Your task to perform on an android device: turn on translation in the chrome app Image 0: 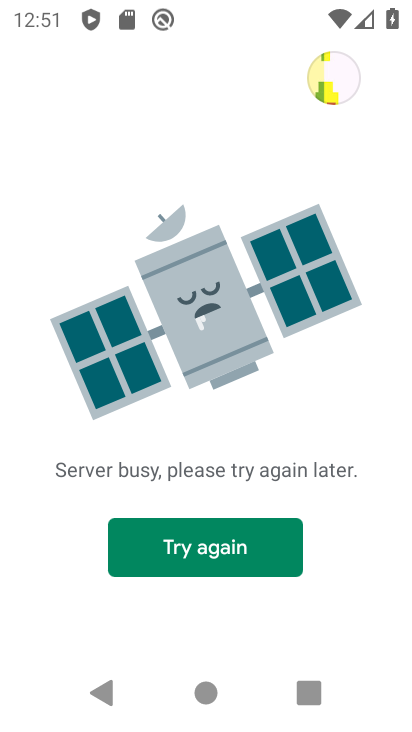
Step 0: press home button
Your task to perform on an android device: turn on translation in the chrome app Image 1: 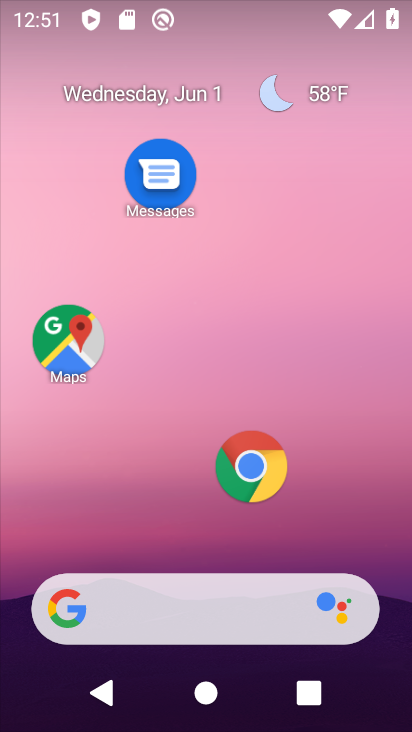
Step 1: click (246, 477)
Your task to perform on an android device: turn on translation in the chrome app Image 2: 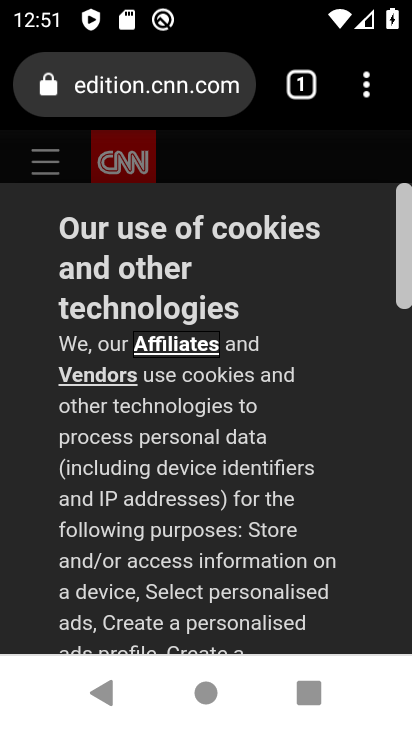
Step 2: click (370, 97)
Your task to perform on an android device: turn on translation in the chrome app Image 3: 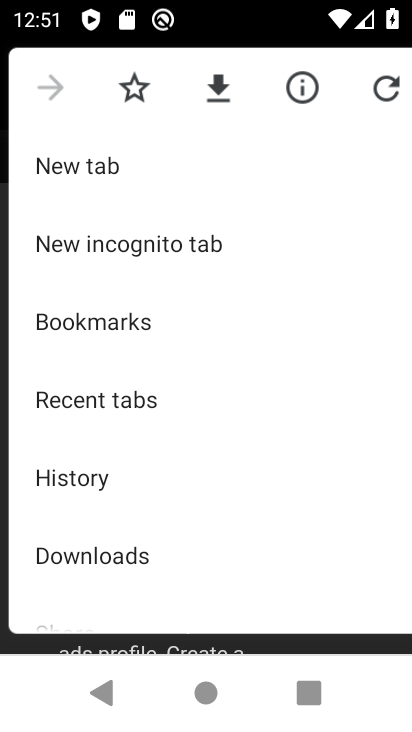
Step 3: drag from (125, 546) to (164, 232)
Your task to perform on an android device: turn on translation in the chrome app Image 4: 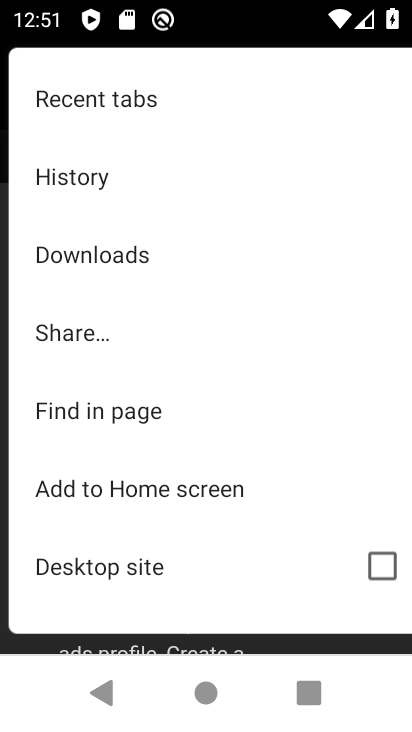
Step 4: drag from (94, 541) to (113, 169)
Your task to perform on an android device: turn on translation in the chrome app Image 5: 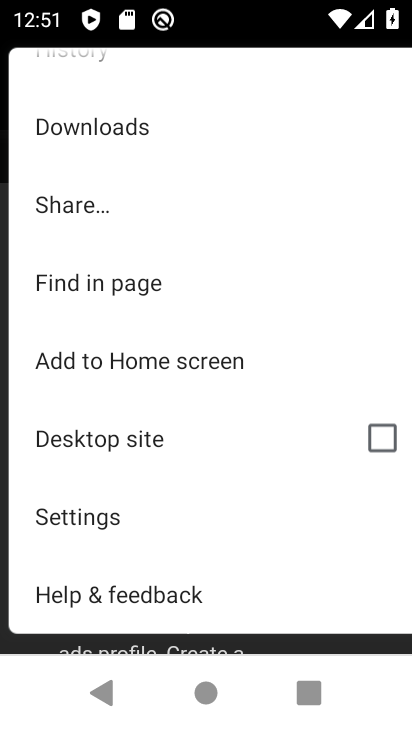
Step 5: click (95, 517)
Your task to perform on an android device: turn on translation in the chrome app Image 6: 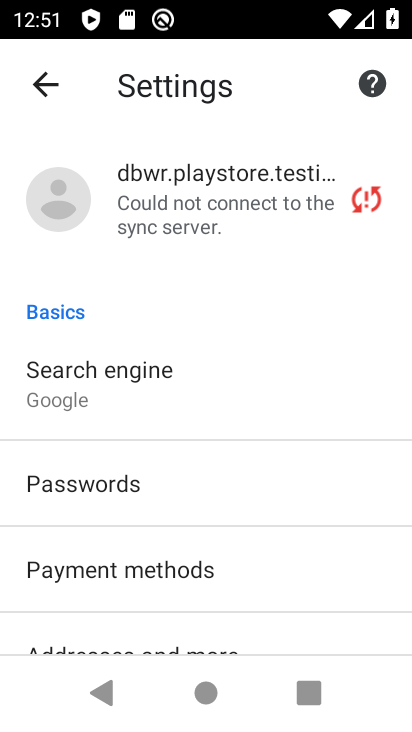
Step 6: drag from (252, 457) to (256, 207)
Your task to perform on an android device: turn on translation in the chrome app Image 7: 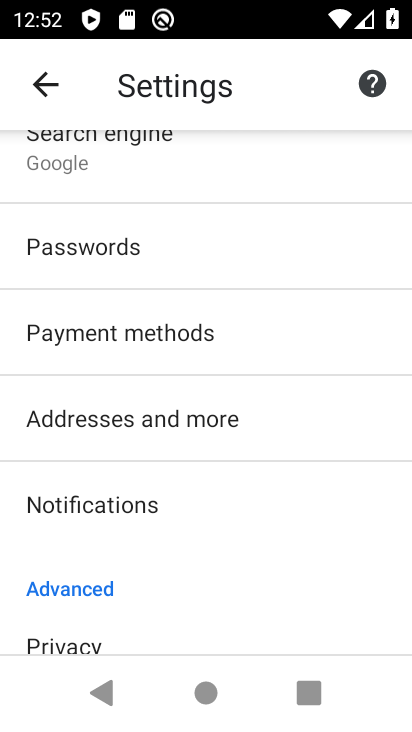
Step 7: drag from (105, 580) to (120, 218)
Your task to perform on an android device: turn on translation in the chrome app Image 8: 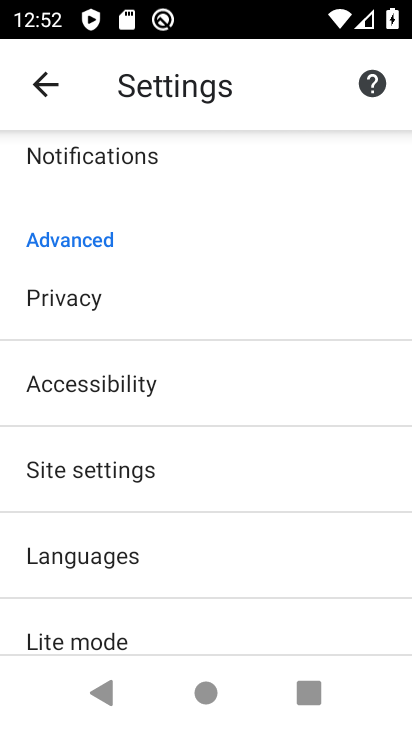
Step 8: click (110, 562)
Your task to perform on an android device: turn on translation in the chrome app Image 9: 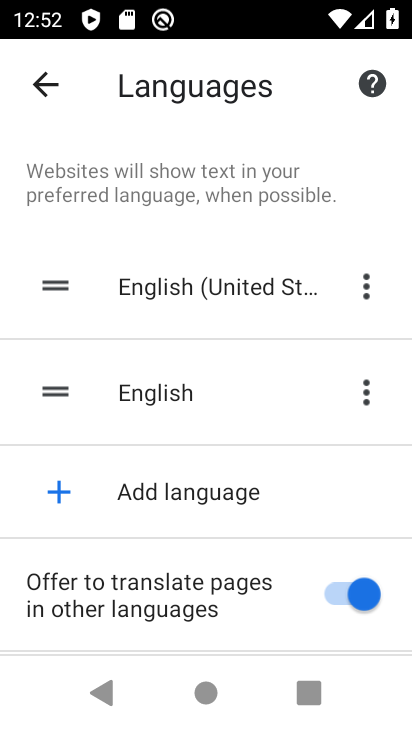
Step 9: task complete